Your task to perform on an android device: turn off location history Image 0: 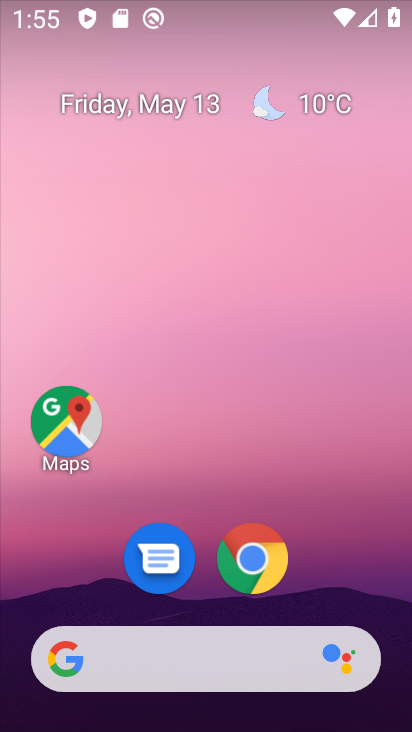
Step 0: drag from (208, 594) to (155, 88)
Your task to perform on an android device: turn off location history Image 1: 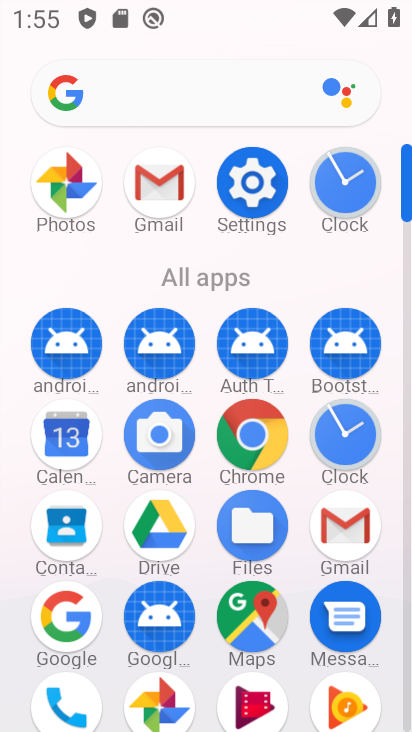
Step 1: click (249, 194)
Your task to perform on an android device: turn off location history Image 2: 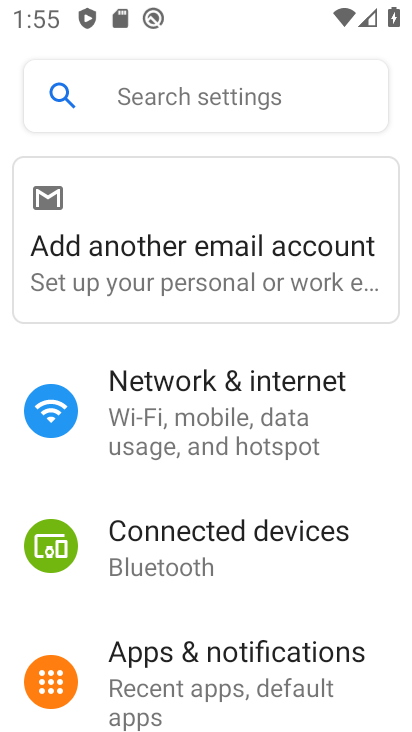
Step 2: drag from (275, 555) to (265, 263)
Your task to perform on an android device: turn off location history Image 3: 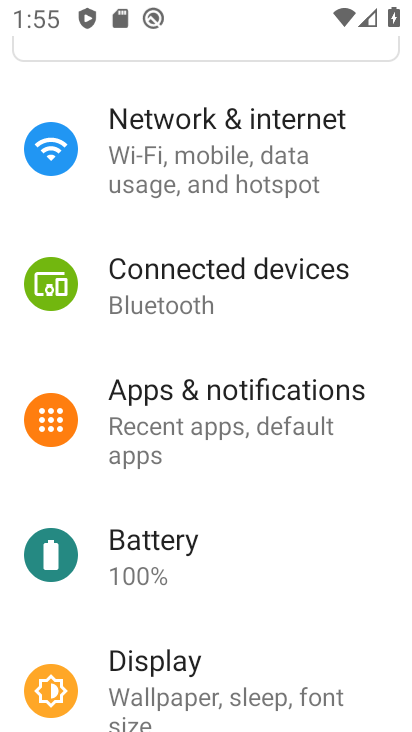
Step 3: drag from (273, 619) to (292, 318)
Your task to perform on an android device: turn off location history Image 4: 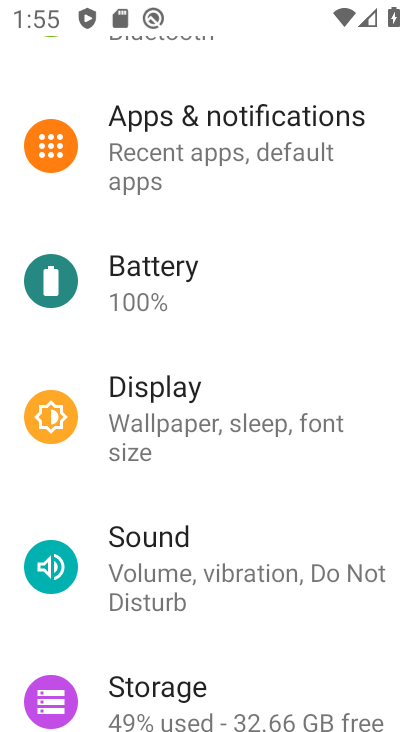
Step 4: drag from (261, 573) to (265, 291)
Your task to perform on an android device: turn off location history Image 5: 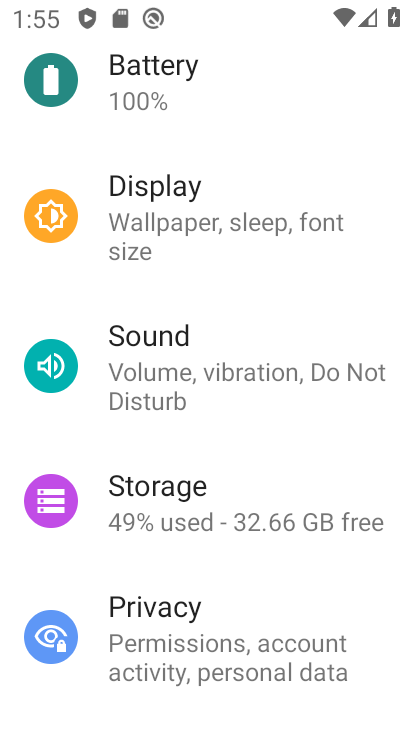
Step 5: drag from (240, 546) to (248, 339)
Your task to perform on an android device: turn off location history Image 6: 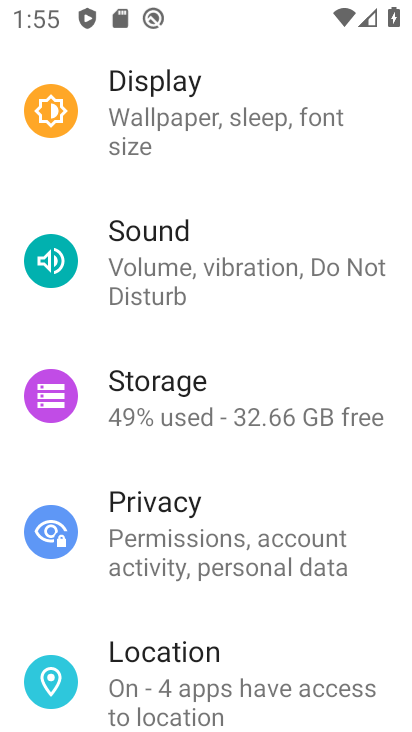
Step 6: click (211, 658)
Your task to perform on an android device: turn off location history Image 7: 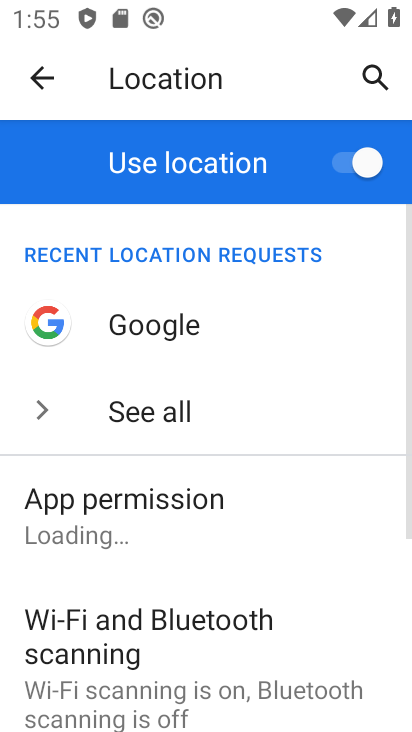
Step 7: drag from (243, 642) to (277, 387)
Your task to perform on an android device: turn off location history Image 8: 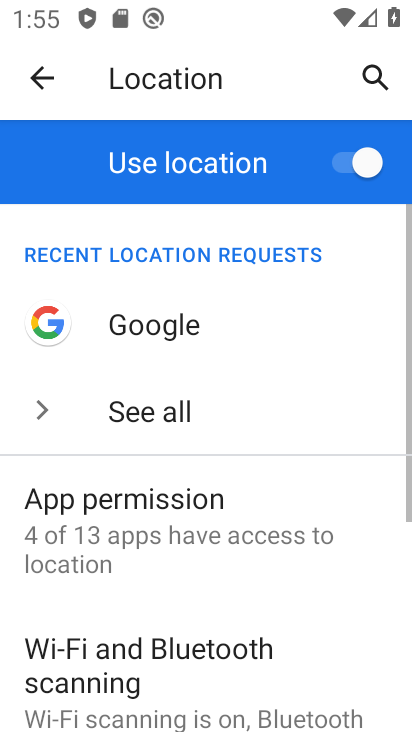
Step 8: drag from (238, 575) to (265, 301)
Your task to perform on an android device: turn off location history Image 9: 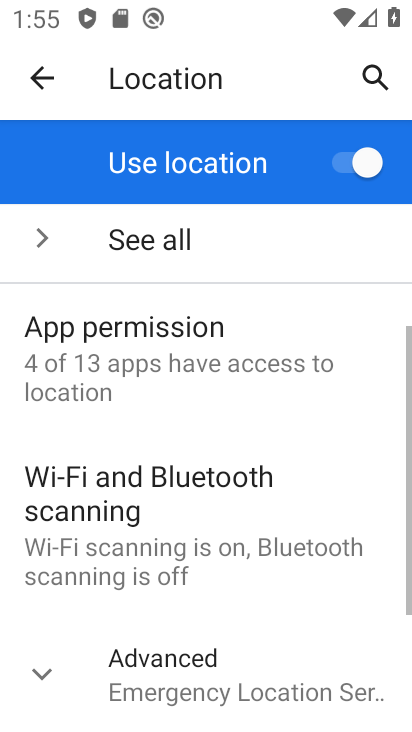
Step 9: click (244, 337)
Your task to perform on an android device: turn off location history Image 10: 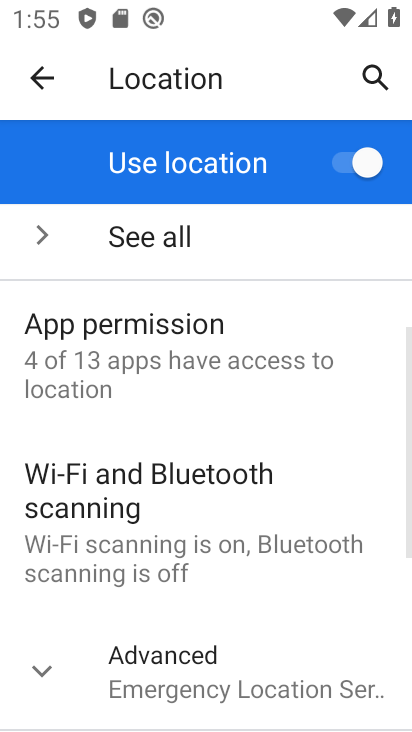
Step 10: drag from (238, 561) to (261, 334)
Your task to perform on an android device: turn off location history Image 11: 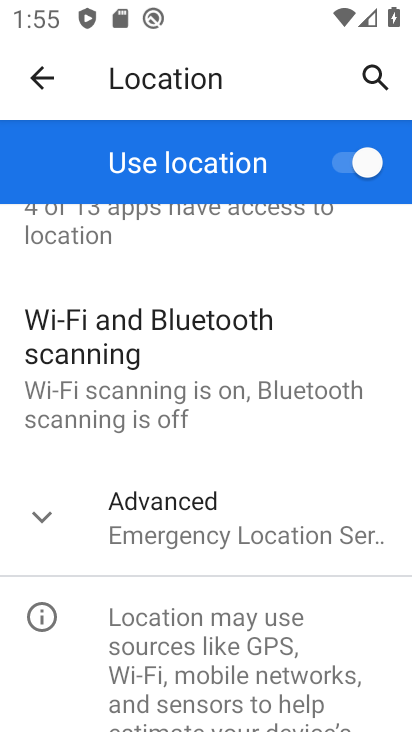
Step 11: click (168, 531)
Your task to perform on an android device: turn off location history Image 12: 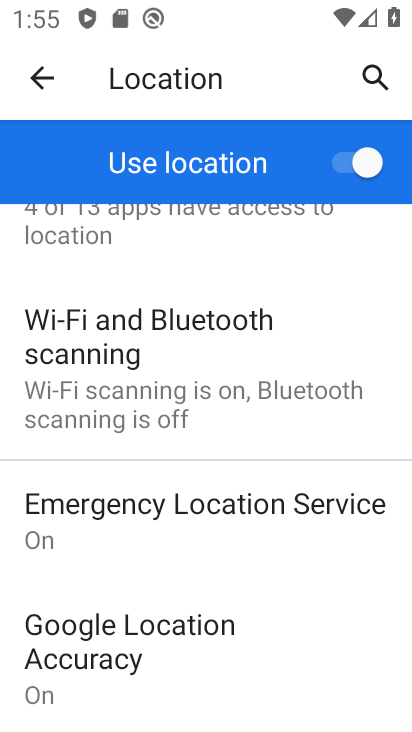
Step 12: drag from (226, 593) to (267, 320)
Your task to perform on an android device: turn off location history Image 13: 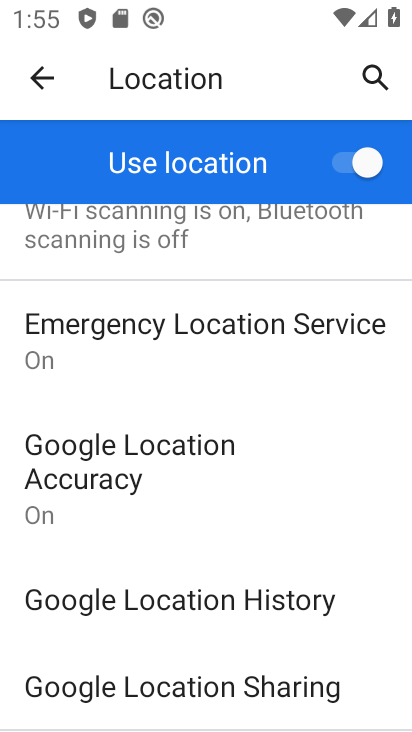
Step 13: click (250, 586)
Your task to perform on an android device: turn off location history Image 14: 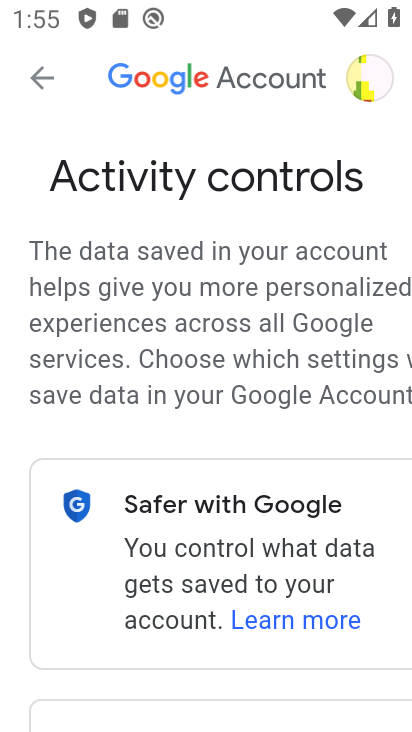
Step 14: drag from (250, 586) to (262, 332)
Your task to perform on an android device: turn off location history Image 15: 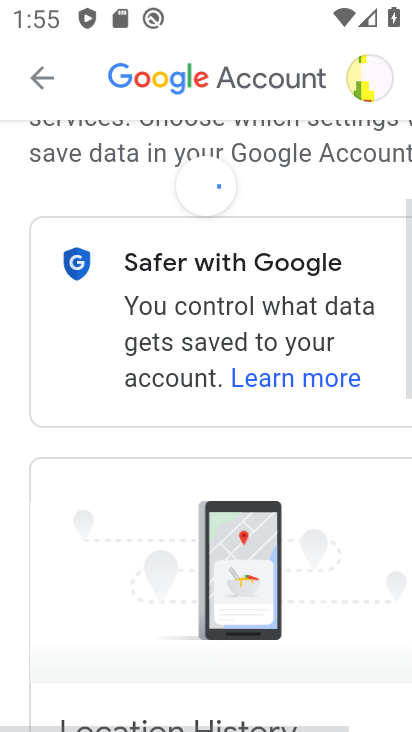
Step 15: drag from (266, 603) to (296, 358)
Your task to perform on an android device: turn off location history Image 16: 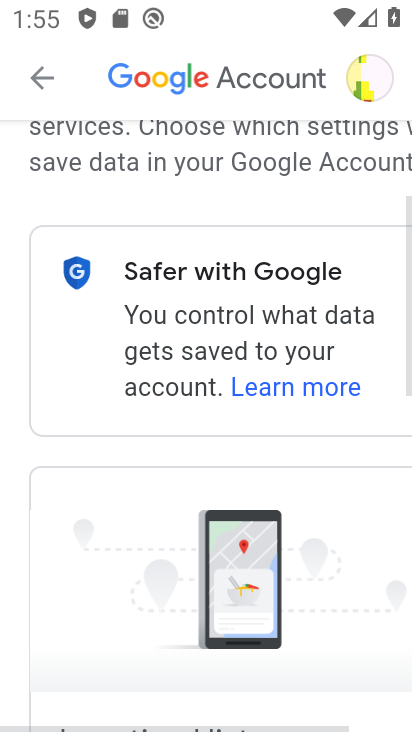
Step 16: drag from (277, 629) to (311, 399)
Your task to perform on an android device: turn off location history Image 17: 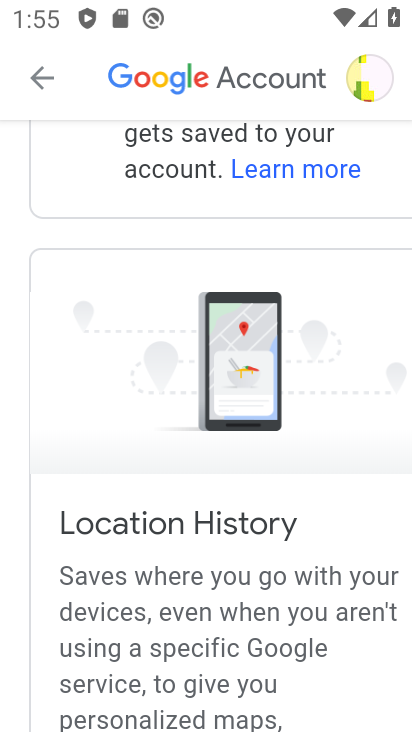
Step 17: drag from (281, 543) to (281, 317)
Your task to perform on an android device: turn off location history Image 18: 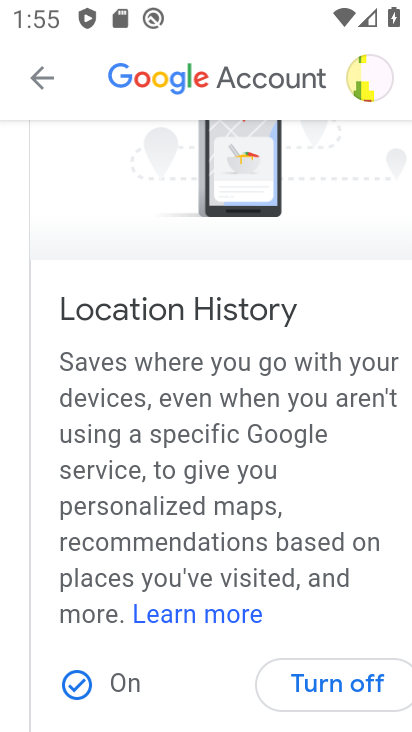
Step 18: click (313, 673)
Your task to perform on an android device: turn off location history Image 19: 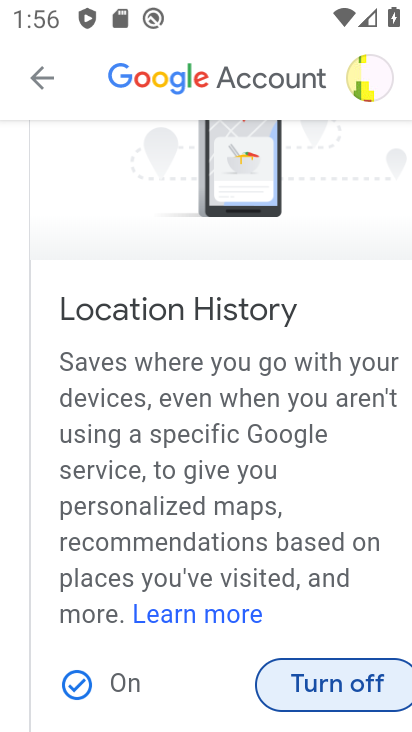
Step 19: task complete